Your task to perform on an android device: Go to internet settings Image 0: 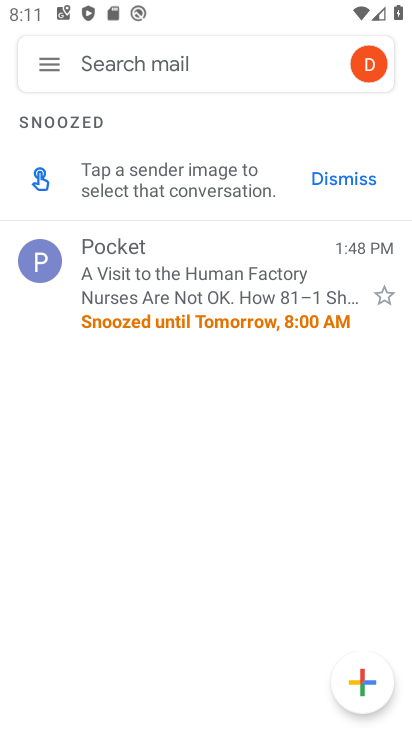
Step 0: press back button
Your task to perform on an android device: Go to internet settings Image 1: 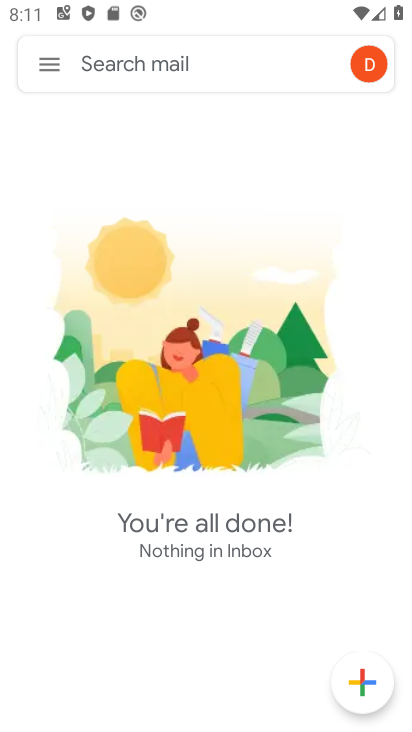
Step 1: press back button
Your task to perform on an android device: Go to internet settings Image 2: 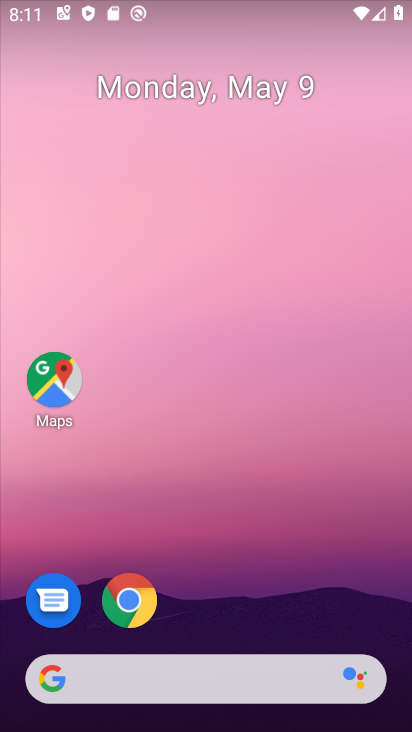
Step 2: drag from (250, 564) to (215, 46)
Your task to perform on an android device: Go to internet settings Image 3: 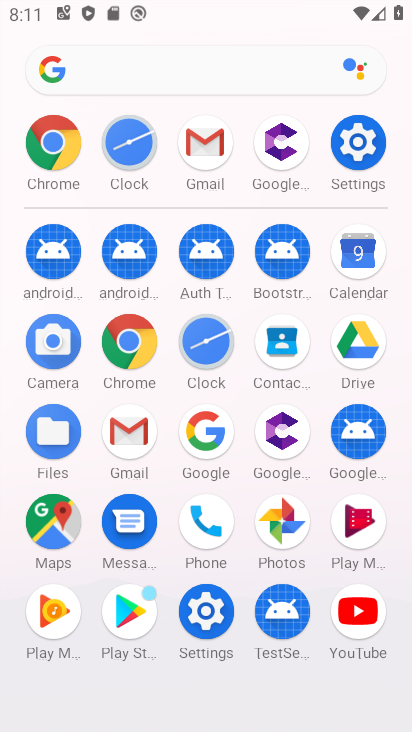
Step 3: click (360, 136)
Your task to perform on an android device: Go to internet settings Image 4: 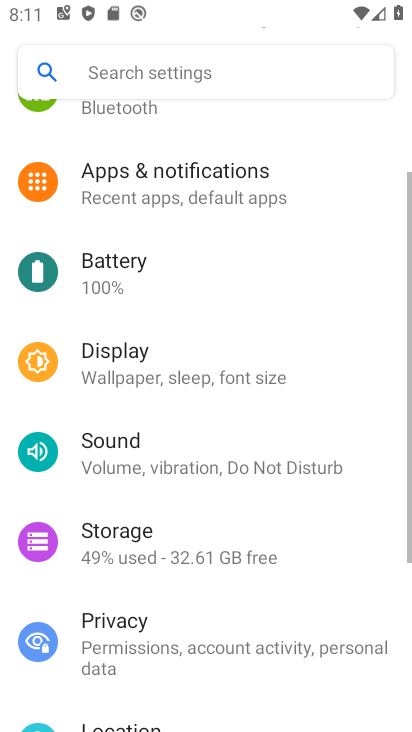
Step 4: drag from (245, 185) to (199, 558)
Your task to perform on an android device: Go to internet settings Image 5: 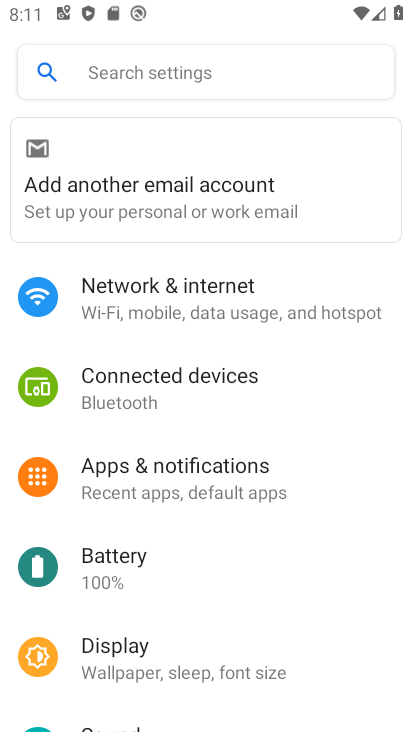
Step 5: click (199, 274)
Your task to perform on an android device: Go to internet settings Image 6: 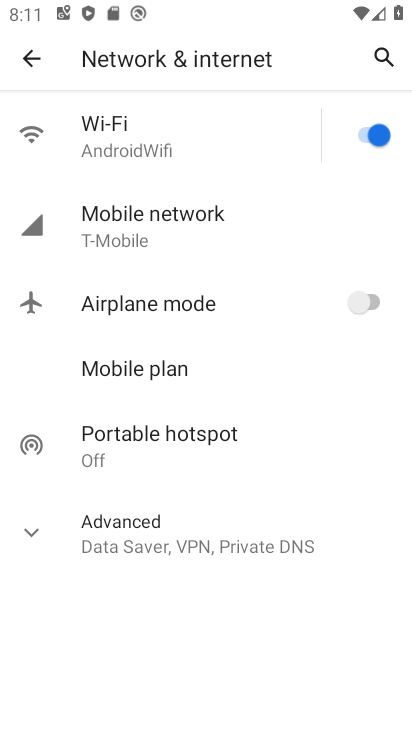
Step 6: click (47, 544)
Your task to perform on an android device: Go to internet settings Image 7: 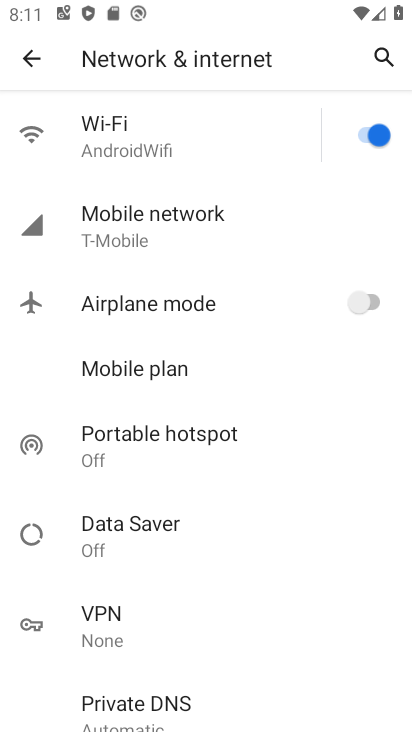
Step 7: drag from (196, 476) to (189, 254)
Your task to perform on an android device: Go to internet settings Image 8: 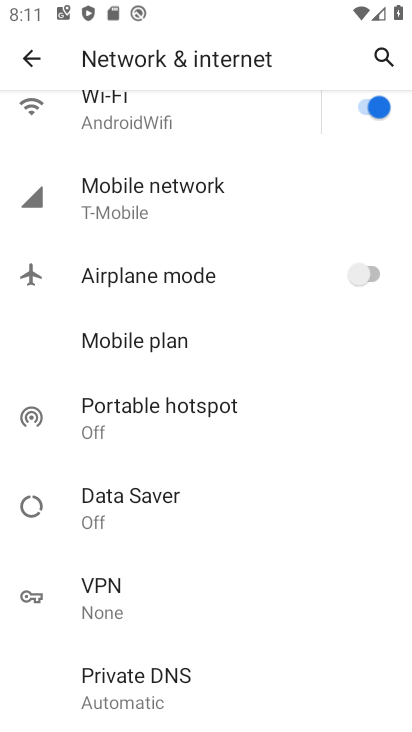
Step 8: click (170, 202)
Your task to perform on an android device: Go to internet settings Image 9: 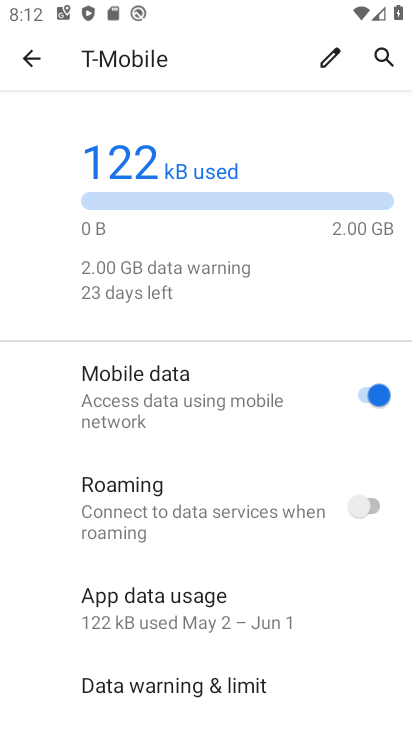
Step 9: drag from (166, 610) to (162, 230)
Your task to perform on an android device: Go to internet settings Image 10: 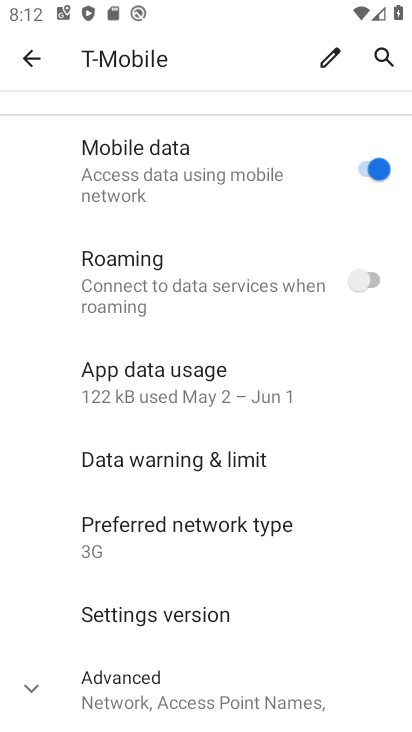
Step 10: click (48, 692)
Your task to perform on an android device: Go to internet settings Image 11: 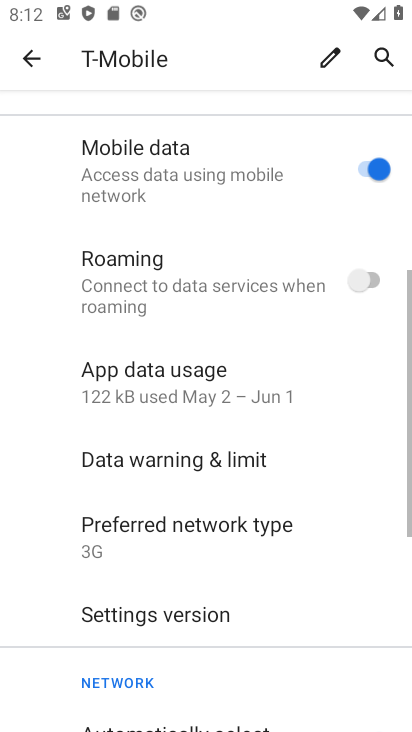
Step 11: drag from (176, 628) to (199, 338)
Your task to perform on an android device: Go to internet settings Image 12: 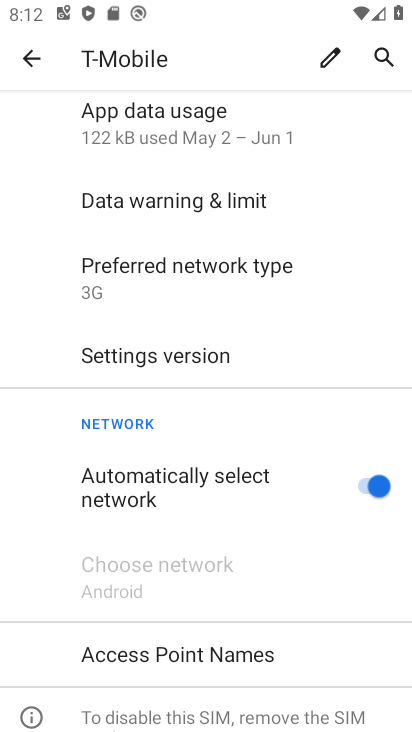
Step 12: drag from (224, 532) to (218, 287)
Your task to perform on an android device: Go to internet settings Image 13: 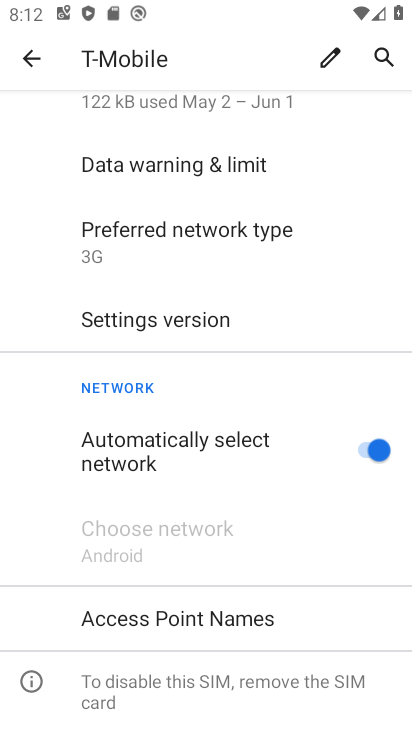
Step 13: drag from (214, 307) to (236, 658)
Your task to perform on an android device: Go to internet settings Image 14: 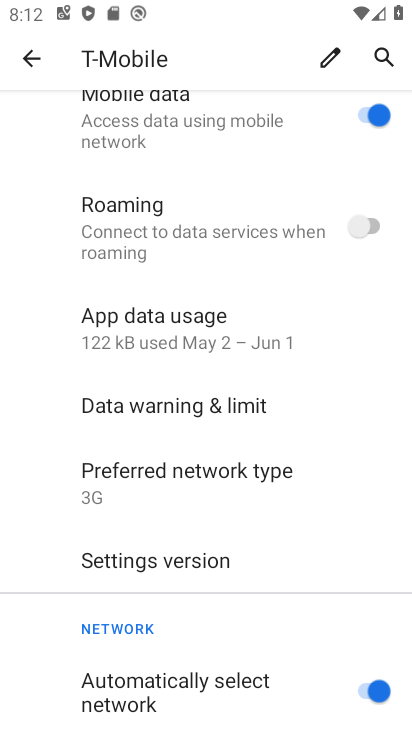
Step 14: click (34, 55)
Your task to perform on an android device: Go to internet settings Image 15: 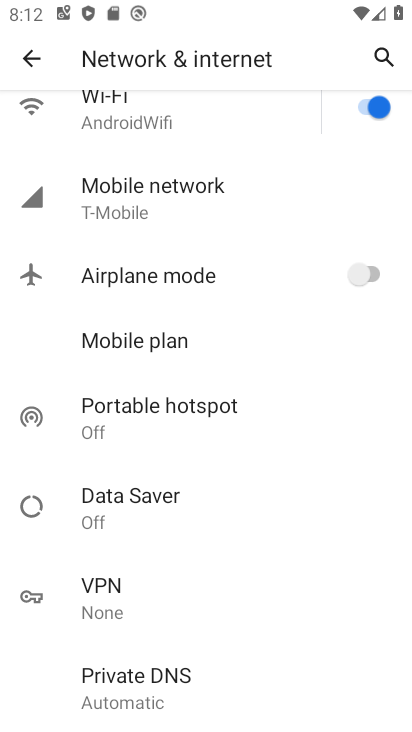
Step 15: task complete